Your task to perform on an android device: Play the last video I watched on Youtube Image 0: 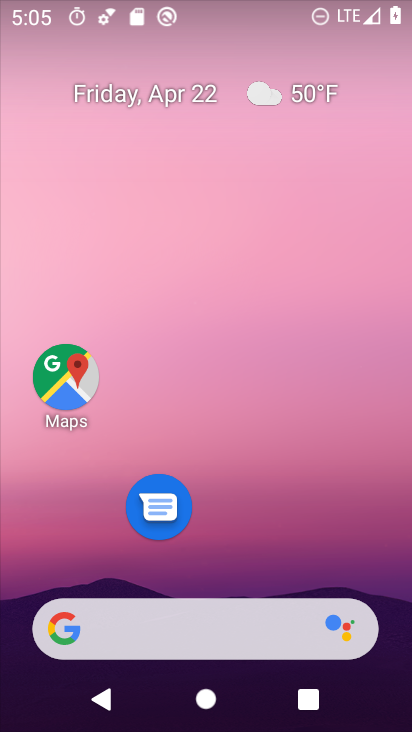
Step 0: drag from (227, 482) to (284, 111)
Your task to perform on an android device: Play the last video I watched on Youtube Image 1: 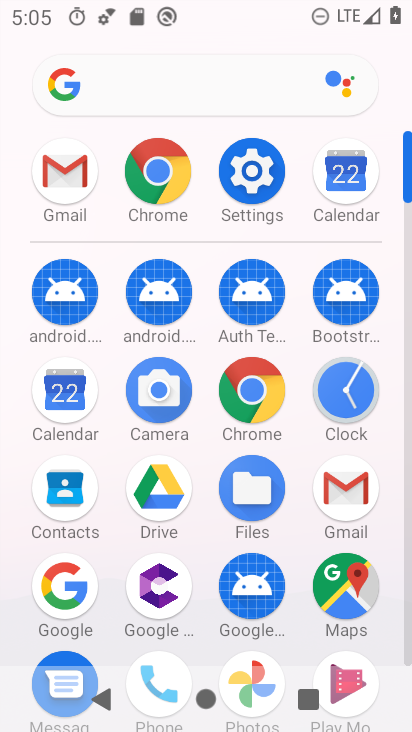
Step 1: drag from (251, 583) to (302, 104)
Your task to perform on an android device: Play the last video I watched on Youtube Image 2: 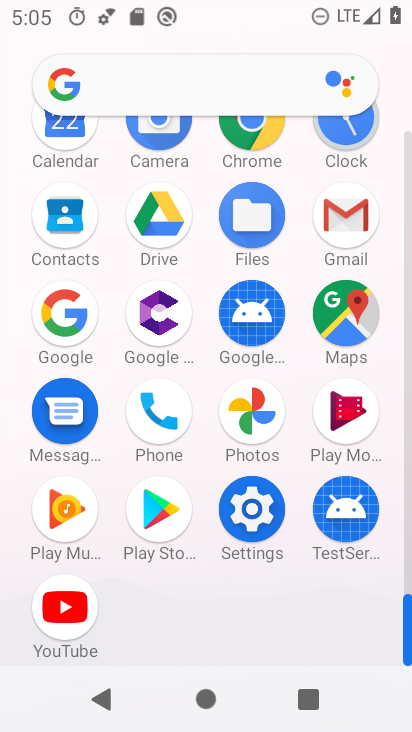
Step 2: click (71, 608)
Your task to perform on an android device: Play the last video I watched on Youtube Image 3: 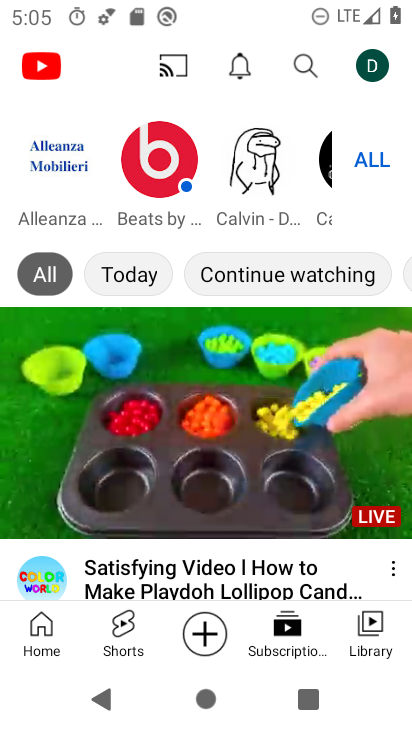
Step 3: click (367, 637)
Your task to perform on an android device: Play the last video I watched on Youtube Image 4: 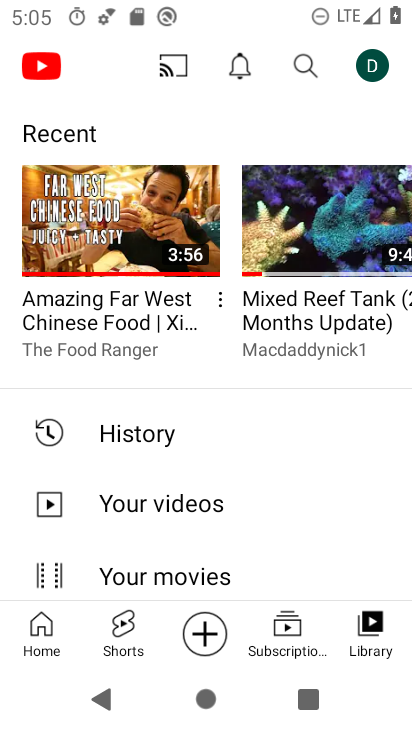
Step 4: click (125, 216)
Your task to perform on an android device: Play the last video I watched on Youtube Image 5: 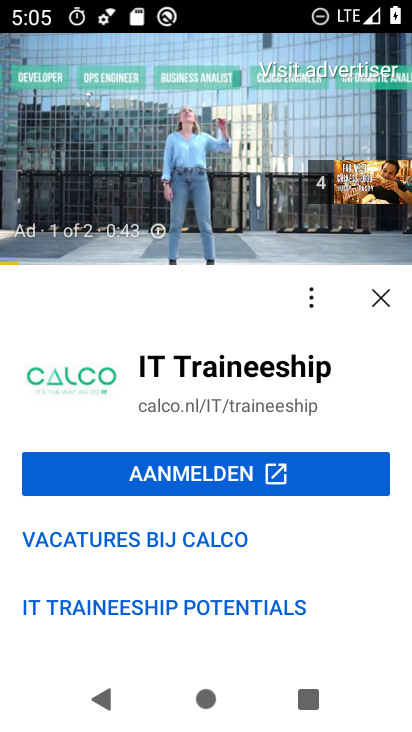
Step 5: task complete